Your task to perform on an android device: Check out the new ikea catalog. Image 0: 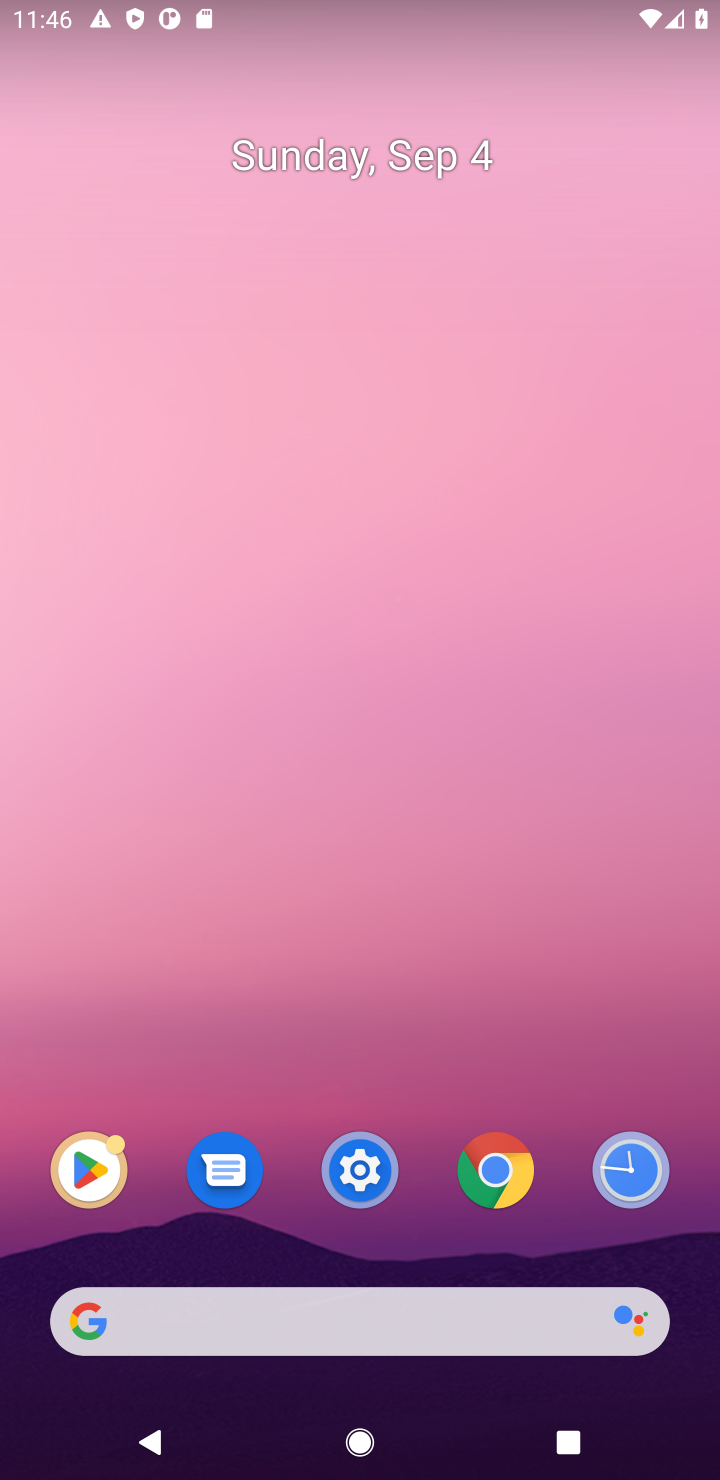
Step 0: click (466, 1328)
Your task to perform on an android device: Check out the new ikea catalog. Image 1: 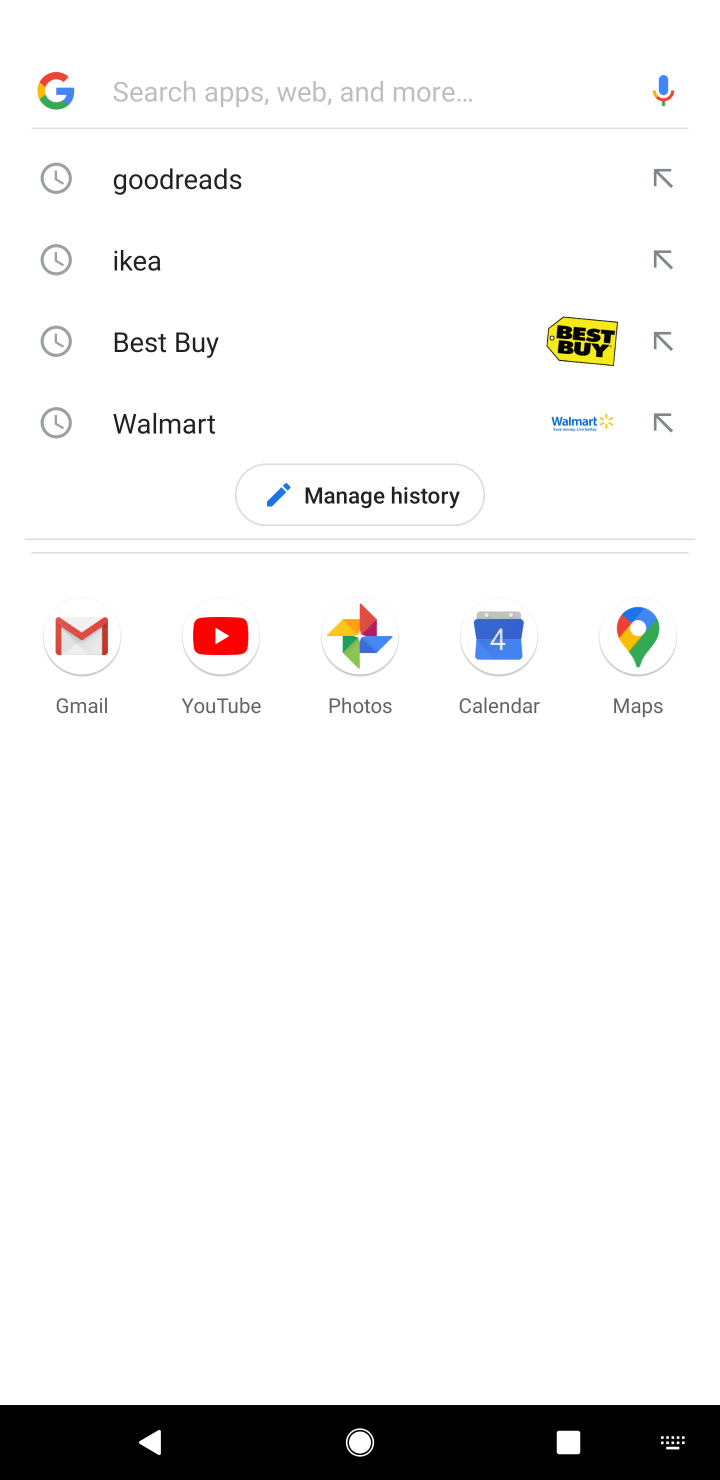
Step 1: type "new ikea catalog"
Your task to perform on an android device: Check out the new ikea catalog. Image 2: 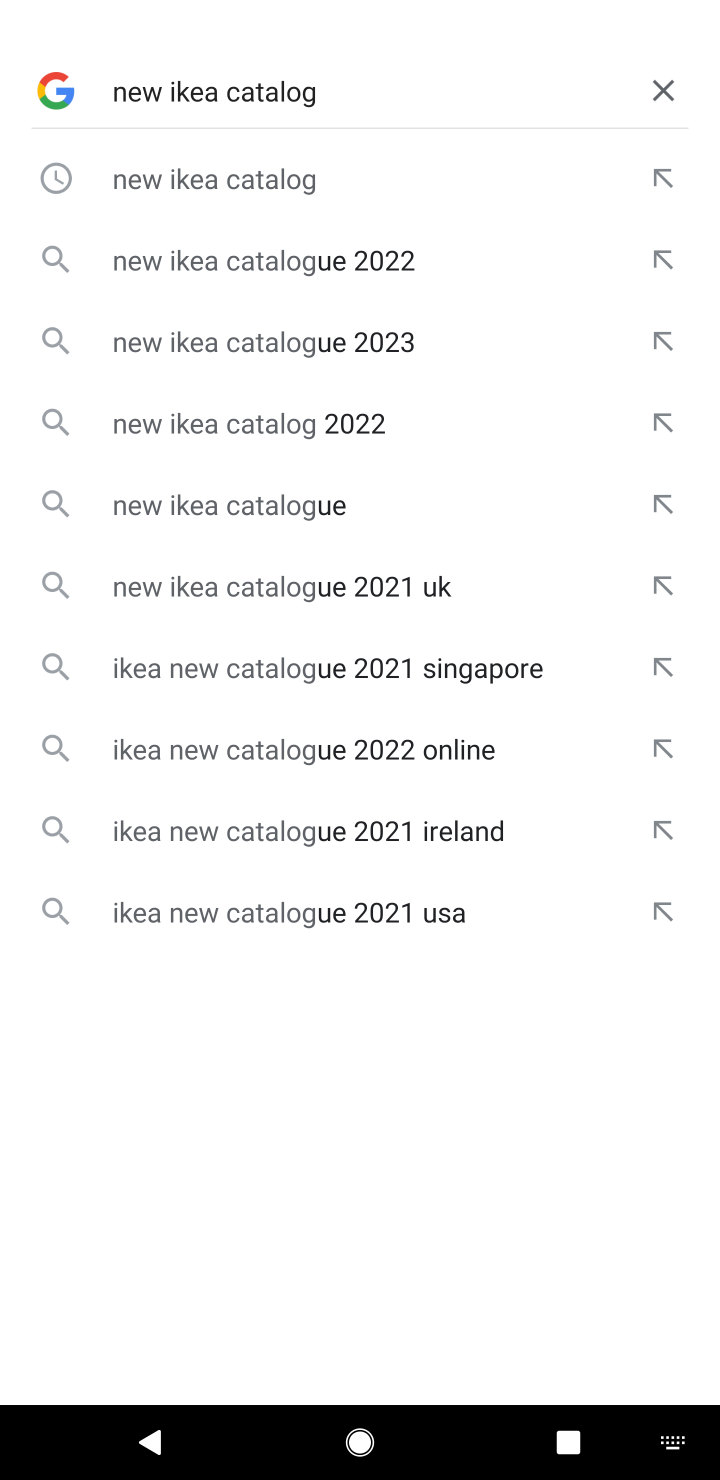
Step 2: click (261, 192)
Your task to perform on an android device: Check out the new ikea catalog. Image 3: 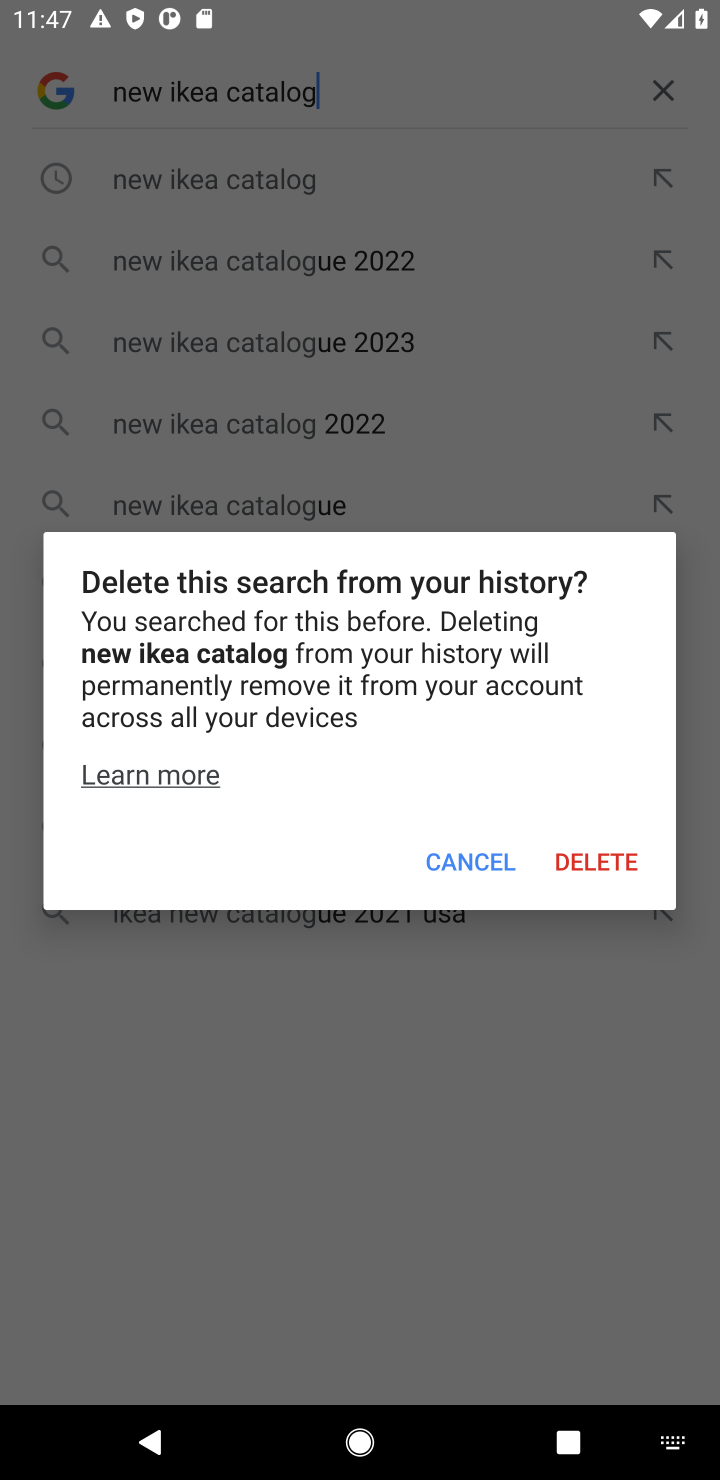
Step 3: click (461, 840)
Your task to perform on an android device: Check out the new ikea catalog. Image 4: 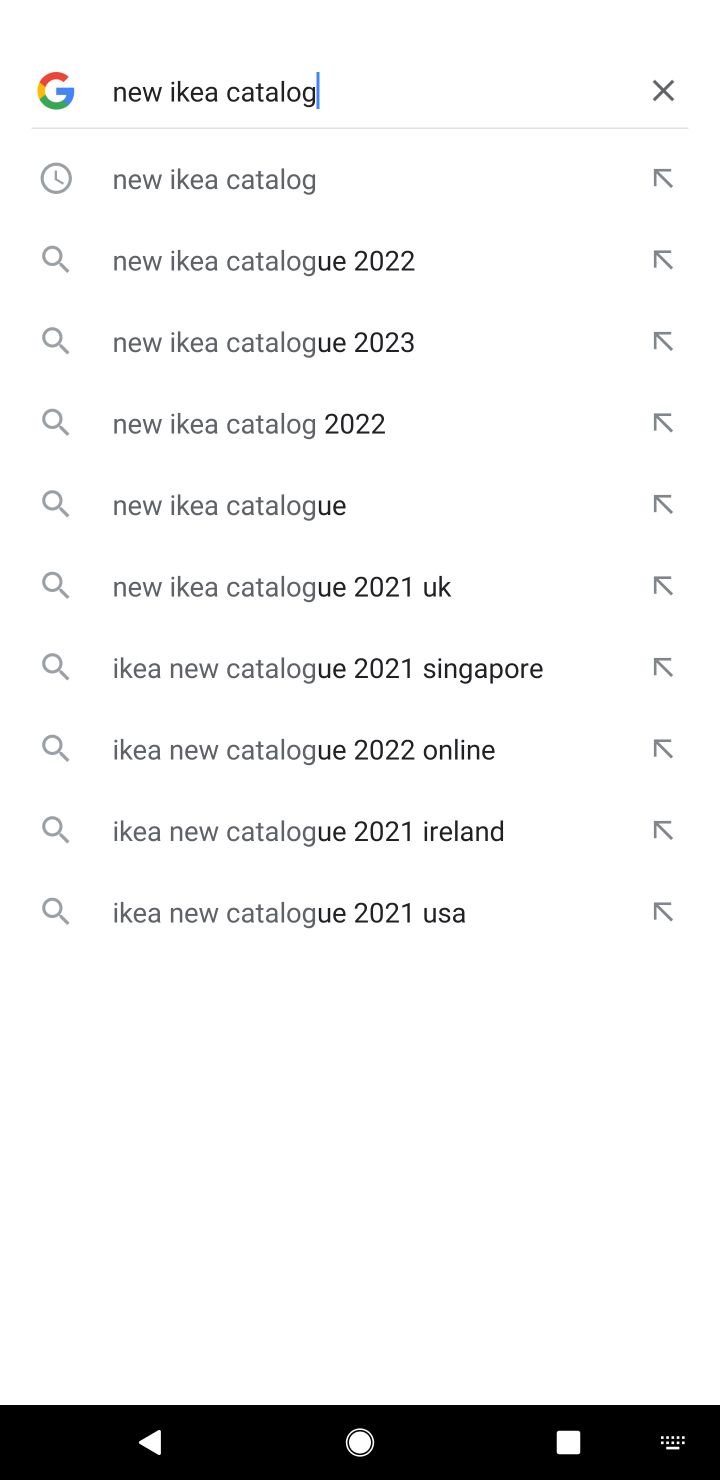
Step 4: click (285, 183)
Your task to perform on an android device: Check out the new ikea catalog. Image 5: 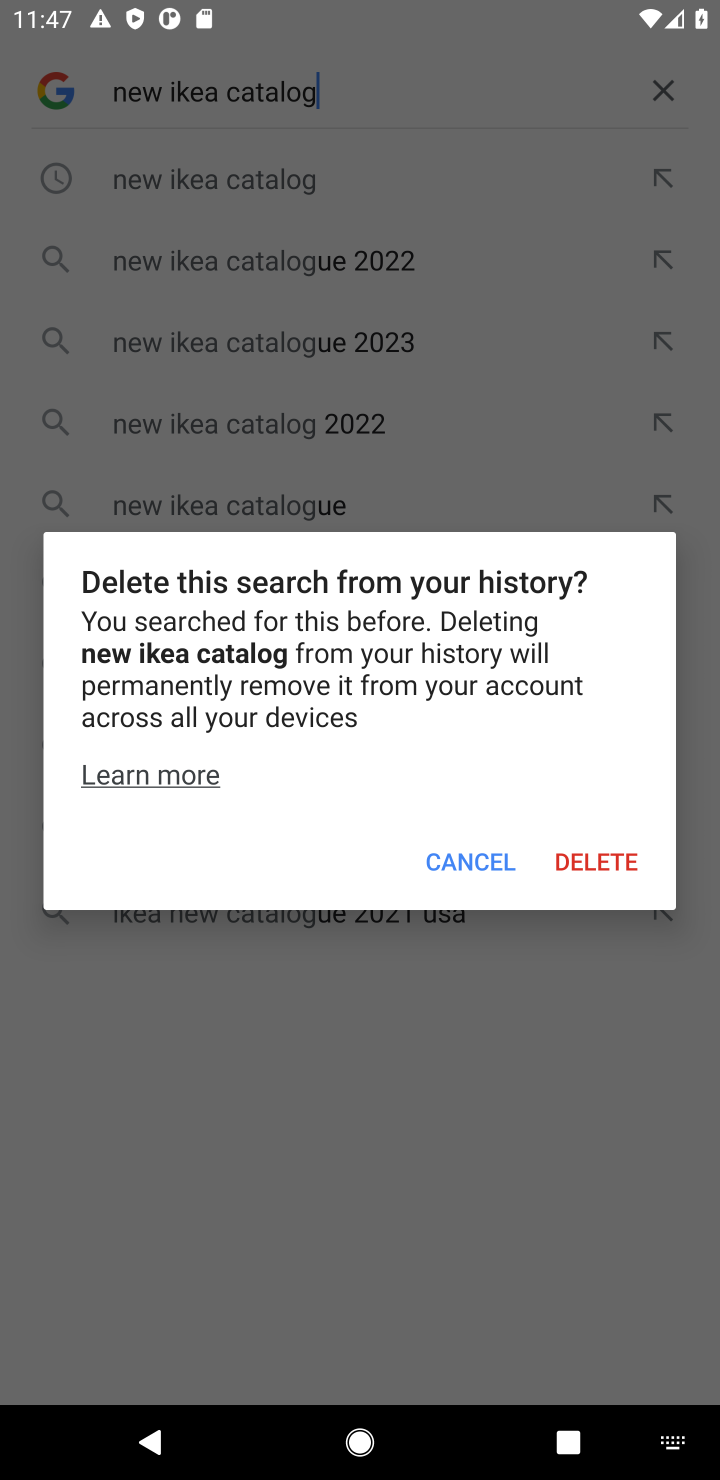
Step 5: click (497, 858)
Your task to perform on an android device: Check out the new ikea catalog. Image 6: 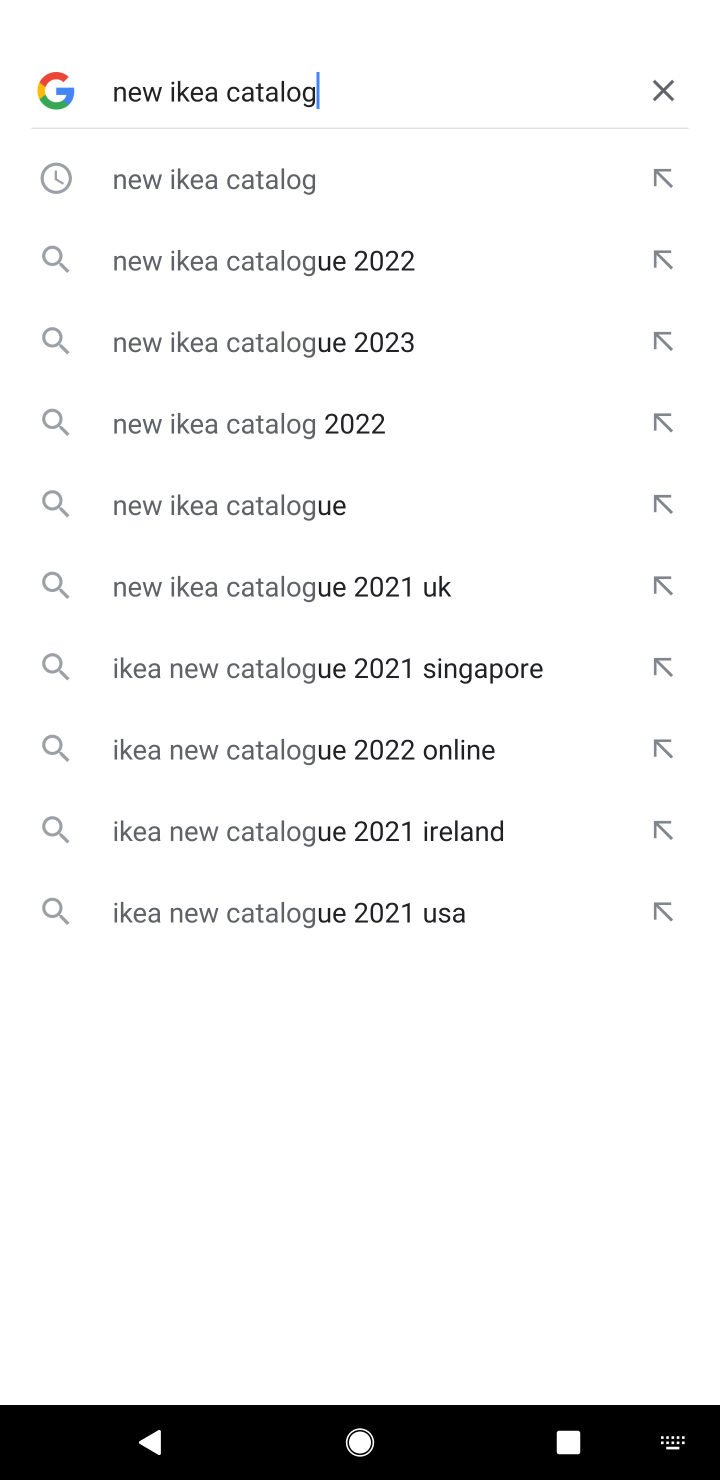
Step 6: click (290, 158)
Your task to perform on an android device: Check out the new ikea catalog. Image 7: 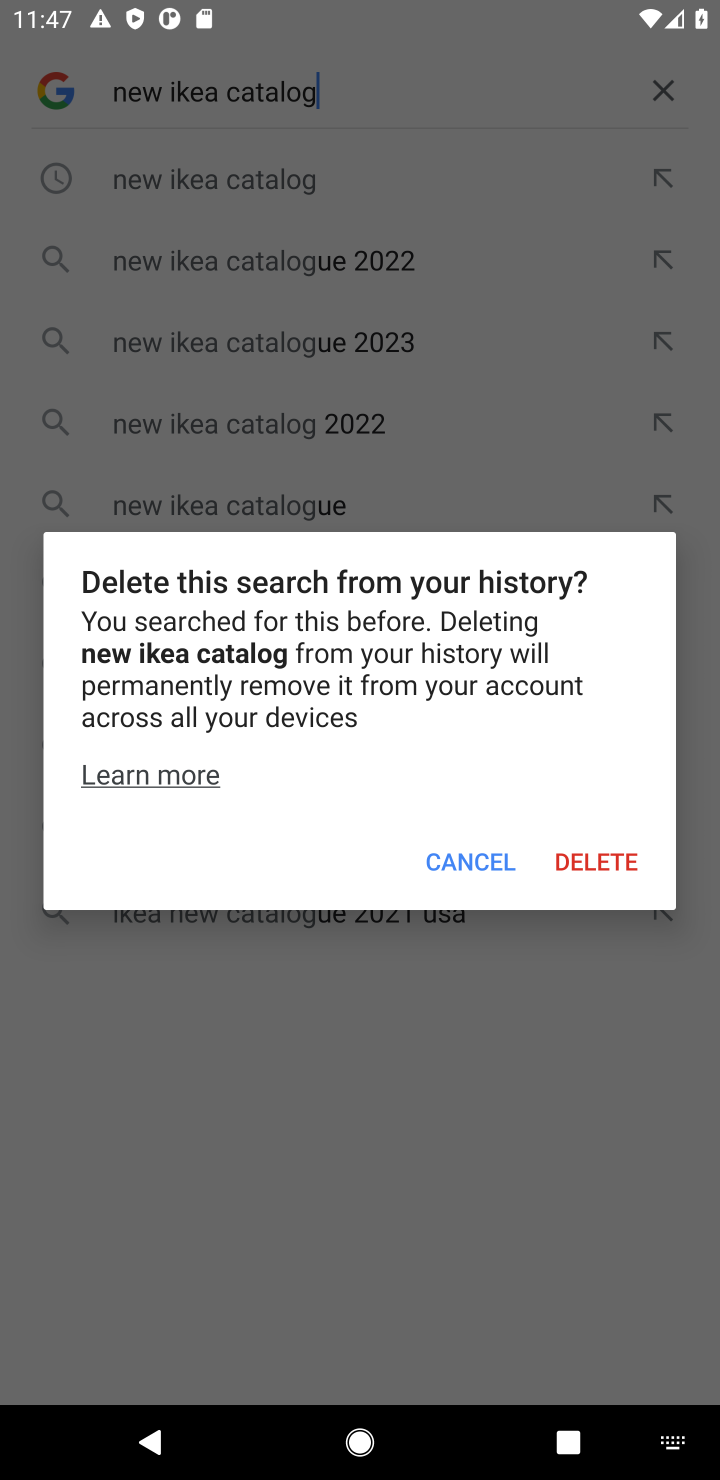
Step 7: click (477, 854)
Your task to perform on an android device: Check out the new ikea catalog. Image 8: 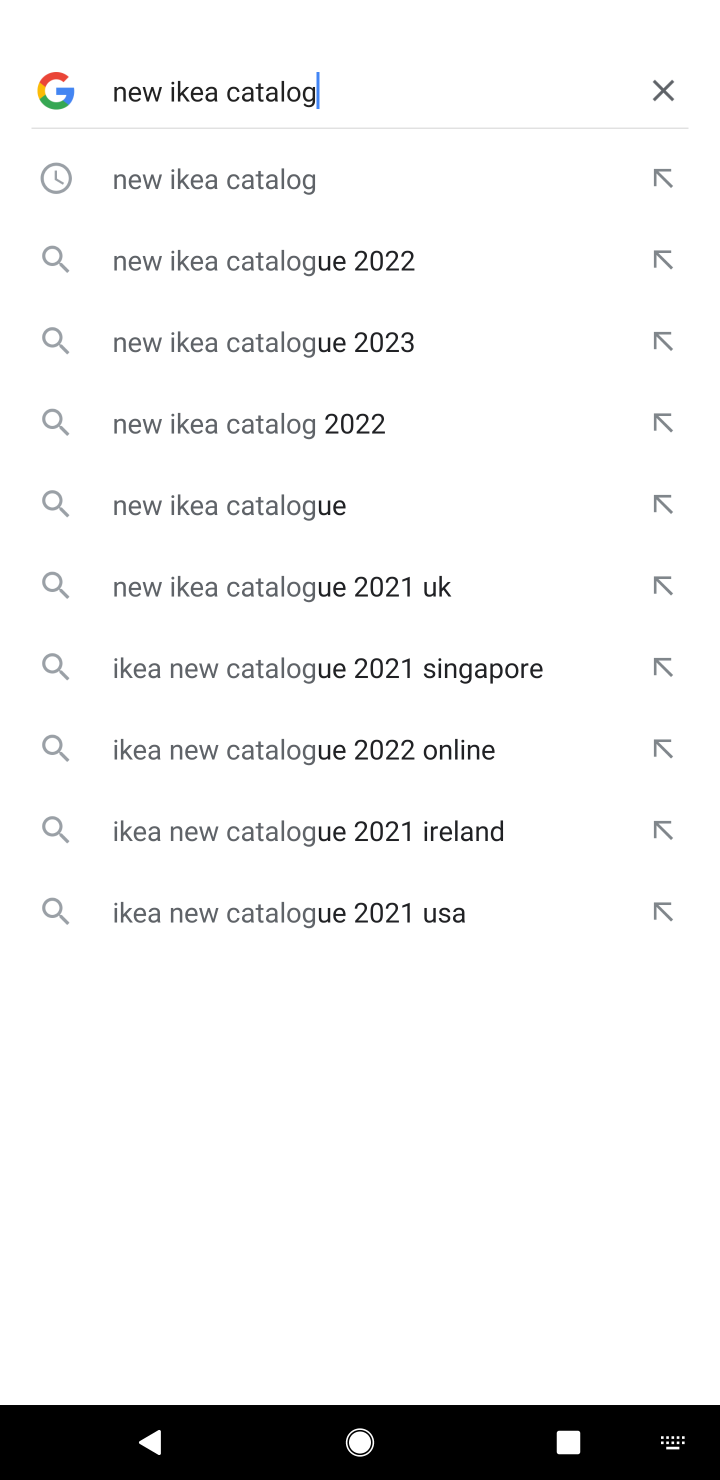
Step 8: click (305, 180)
Your task to perform on an android device: Check out the new ikea catalog. Image 9: 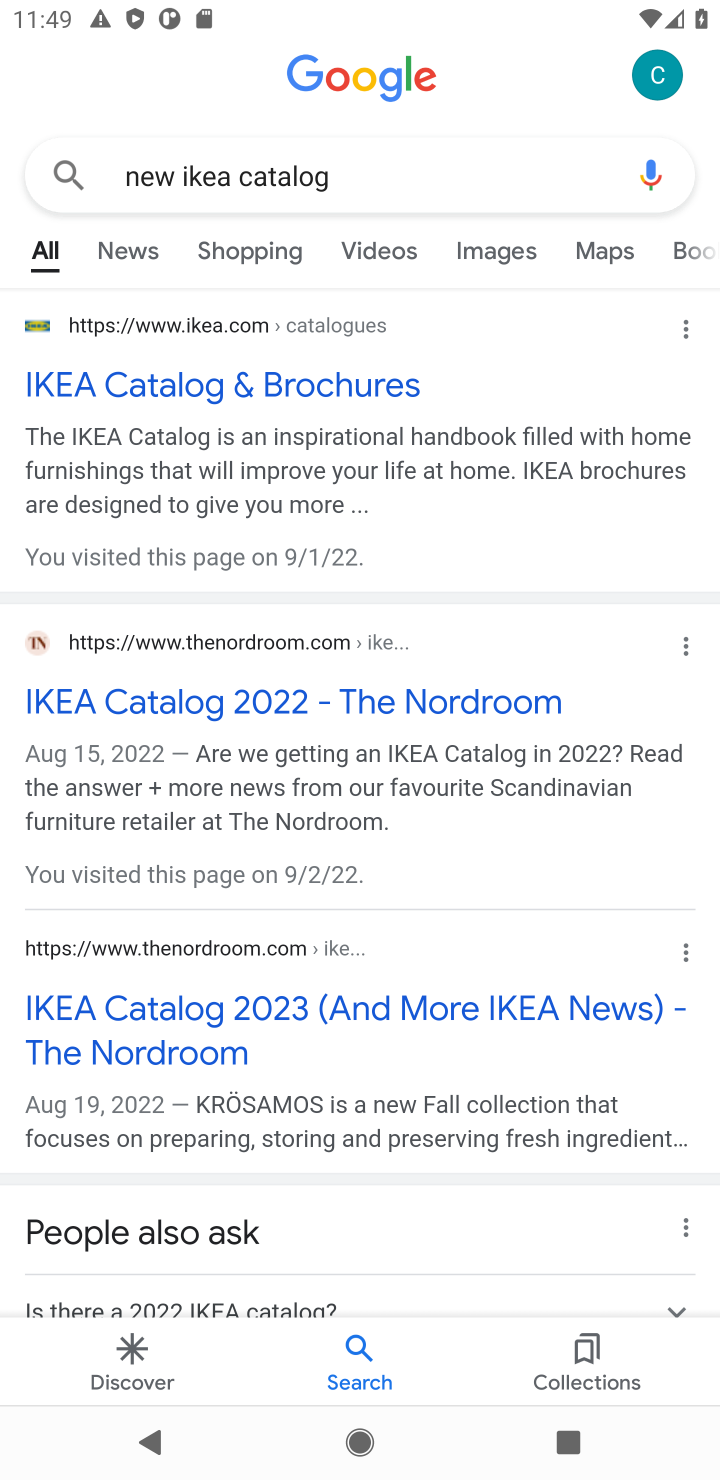
Step 9: click (222, 395)
Your task to perform on an android device: Check out the new ikea catalog. Image 10: 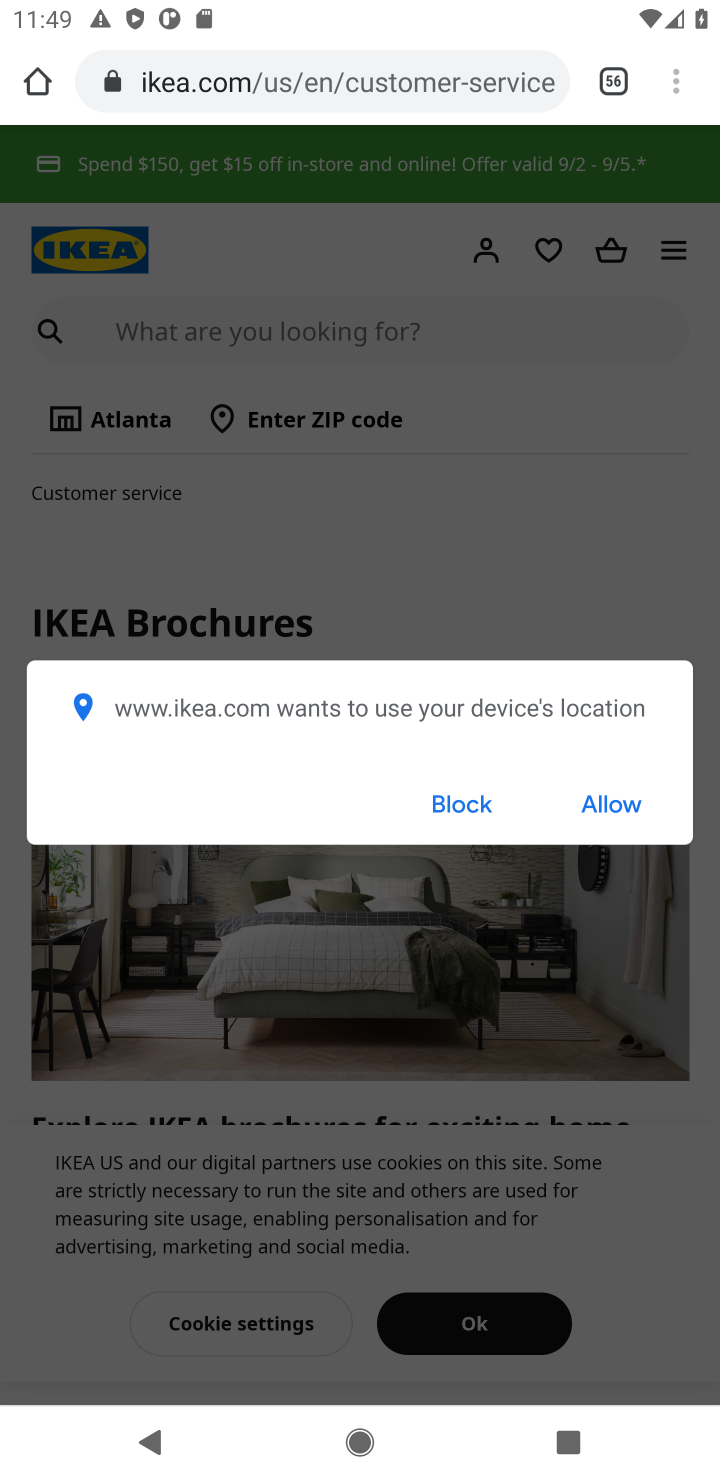
Step 10: click (601, 791)
Your task to perform on an android device: Check out the new ikea catalog. Image 11: 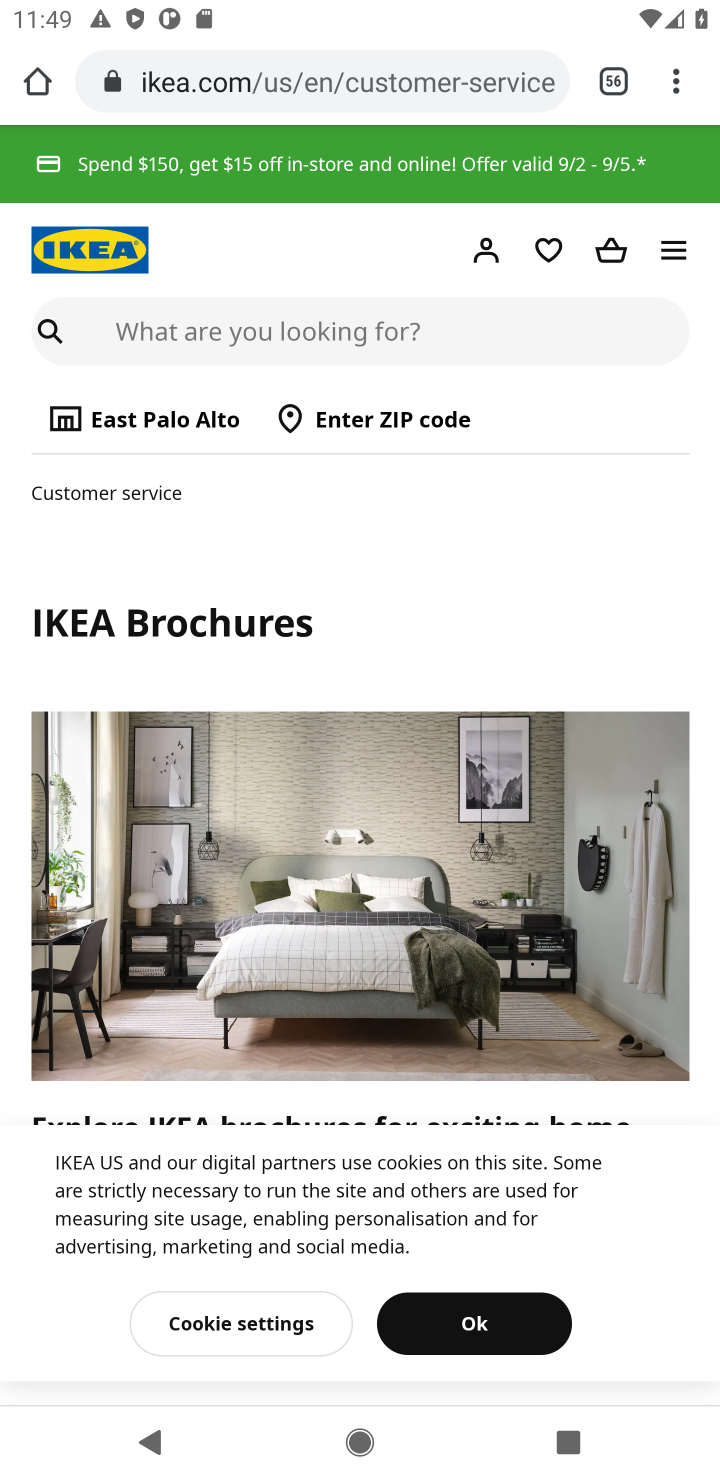
Step 11: click (446, 322)
Your task to perform on an android device: Check out the new ikea catalog. Image 12: 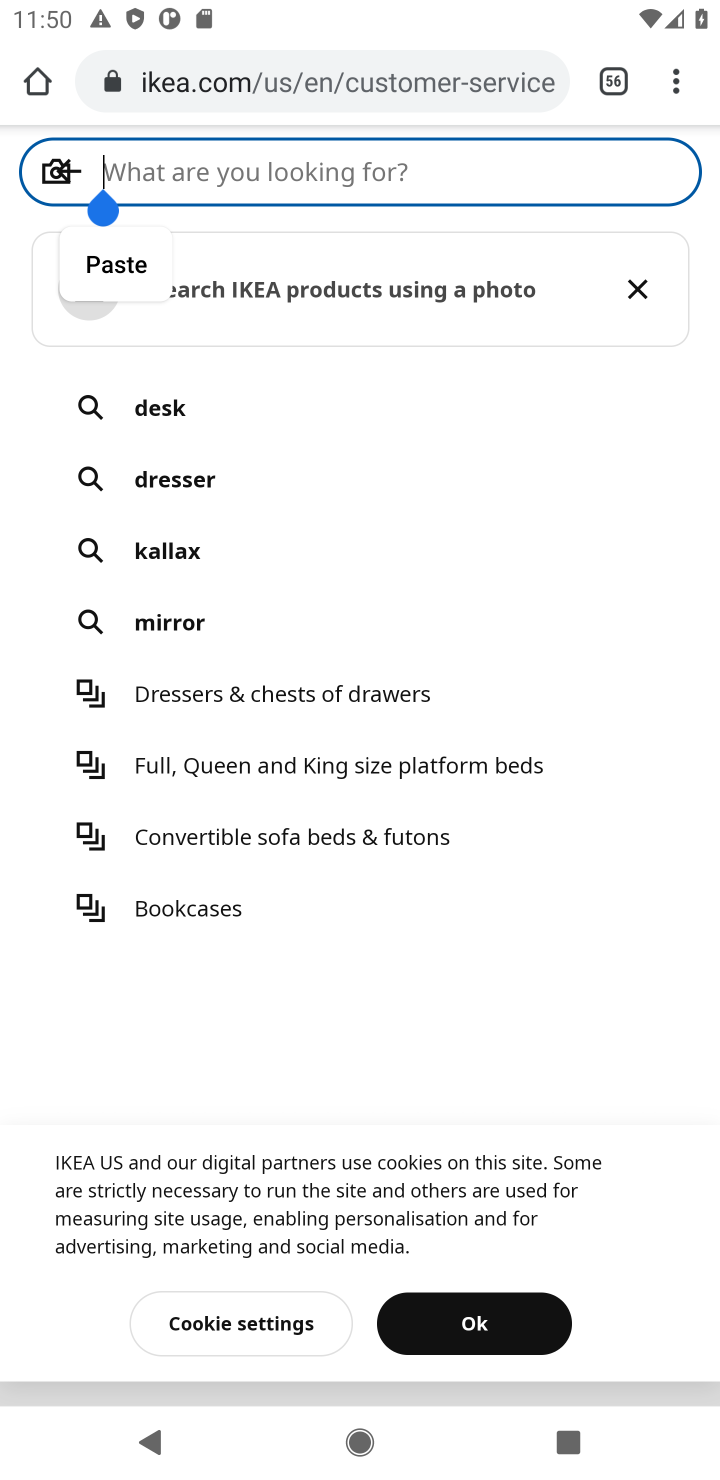
Step 12: task complete